Your task to perform on an android device: turn off notifications in google photos Image 0: 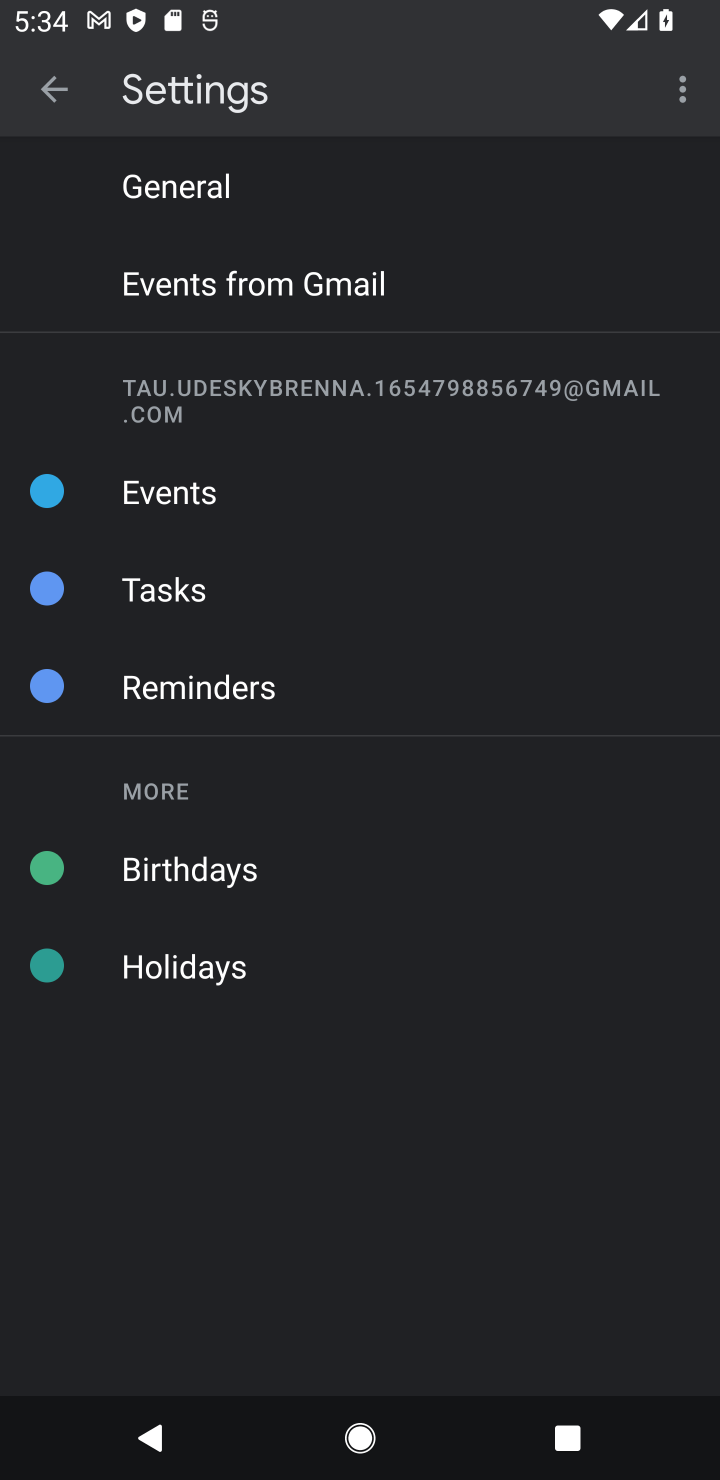
Step 0: task complete